Your task to perform on an android device: change keyboard looks Image 0: 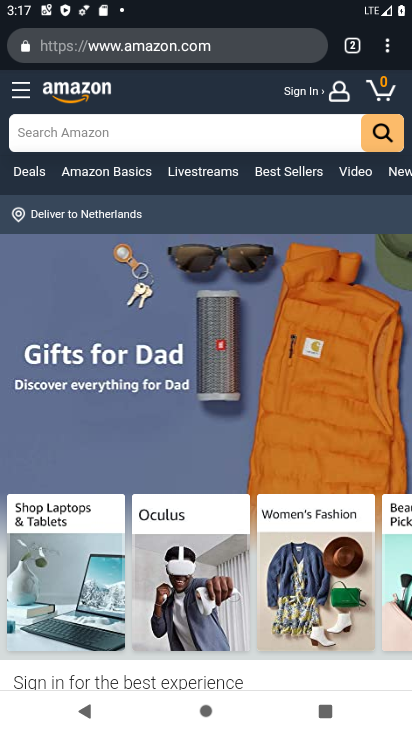
Step 0: press back button
Your task to perform on an android device: change keyboard looks Image 1: 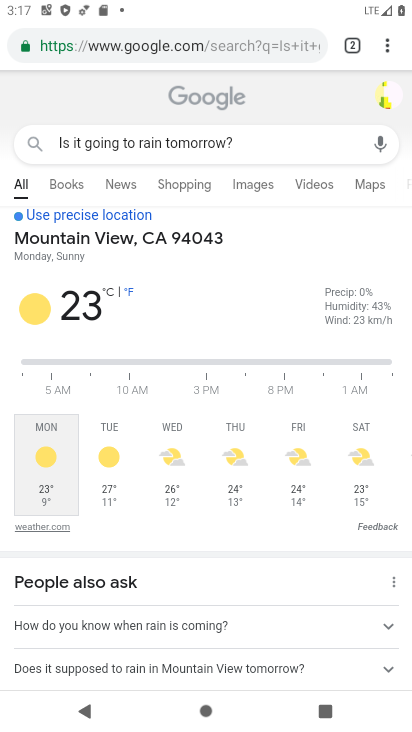
Step 1: press home button
Your task to perform on an android device: change keyboard looks Image 2: 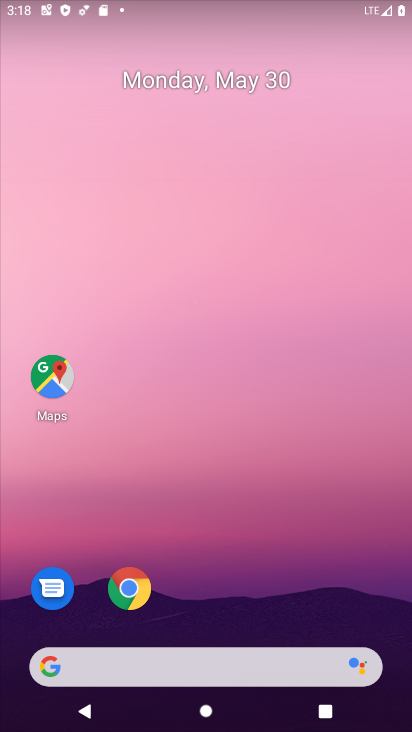
Step 2: drag from (303, 558) to (294, 50)
Your task to perform on an android device: change keyboard looks Image 3: 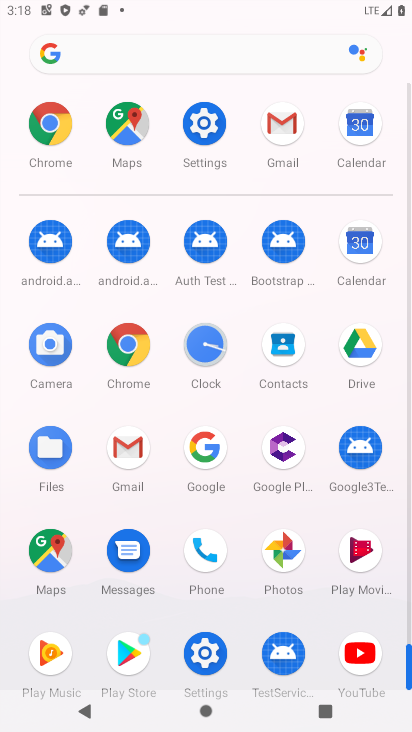
Step 3: click (203, 653)
Your task to perform on an android device: change keyboard looks Image 4: 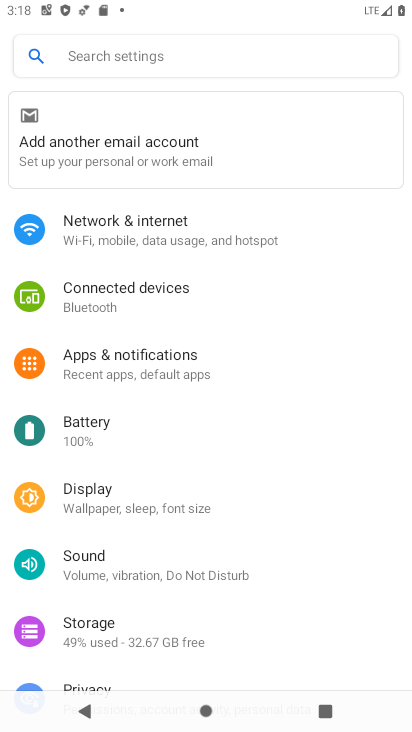
Step 4: drag from (295, 578) to (295, 141)
Your task to perform on an android device: change keyboard looks Image 5: 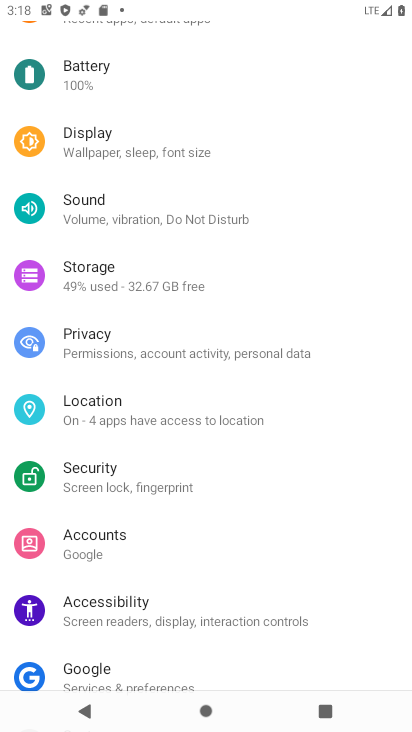
Step 5: drag from (263, 624) to (280, 146)
Your task to perform on an android device: change keyboard looks Image 6: 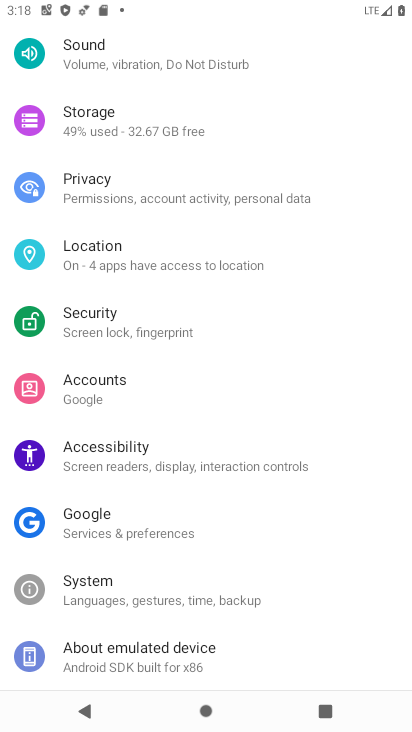
Step 6: click (162, 645)
Your task to perform on an android device: change keyboard looks Image 7: 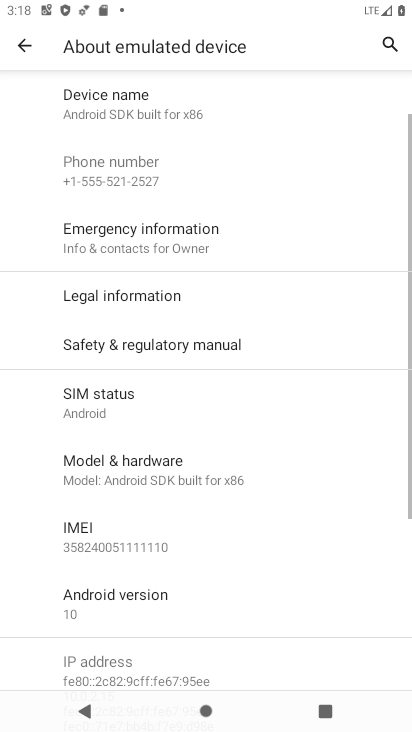
Step 7: click (31, 42)
Your task to perform on an android device: change keyboard looks Image 8: 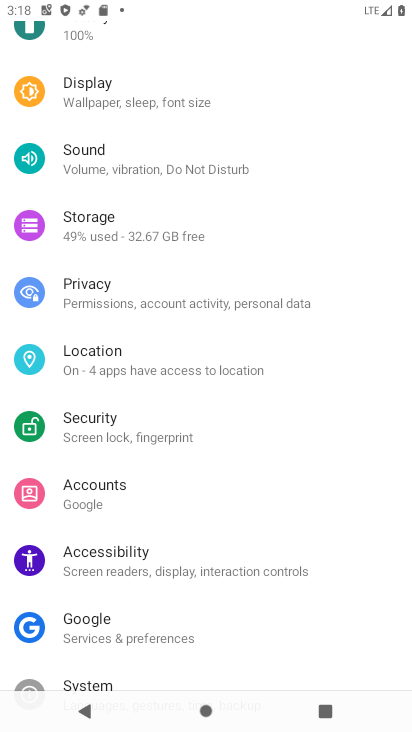
Step 8: drag from (211, 636) to (283, 133)
Your task to perform on an android device: change keyboard looks Image 9: 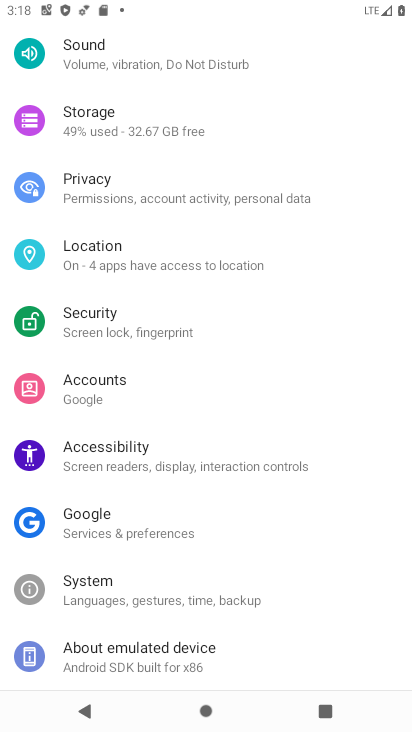
Step 9: click (148, 596)
Your task to perform on an android device: change keyboard looks Image 10: 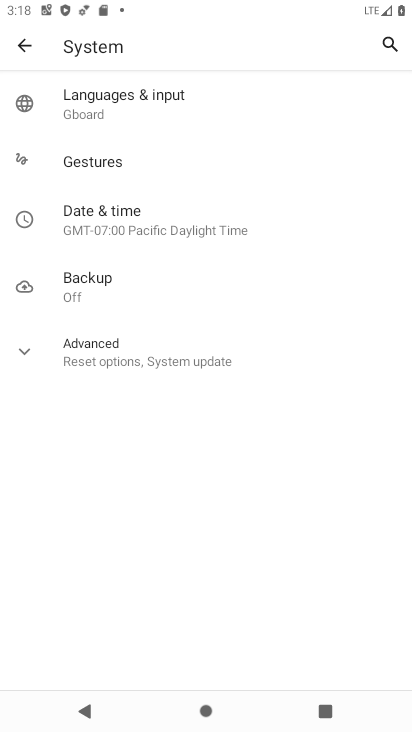
Step 10: click (37, 359)
Your task to perform on an android device: change keyboard looks Image 11: 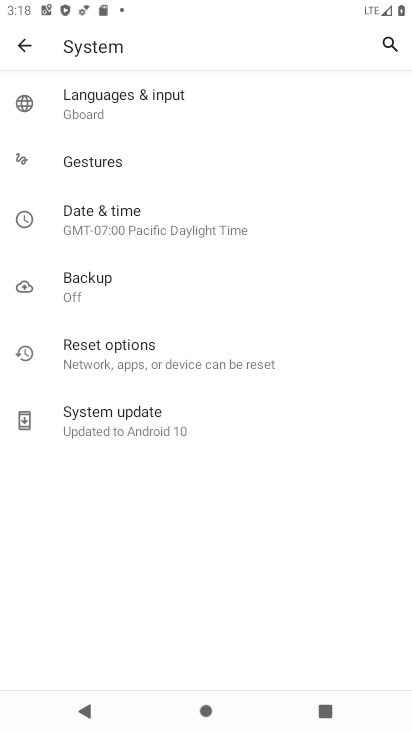
Step 11: click (134, 103)
Your task to perform on an android device: change keyboard looks Image 12: 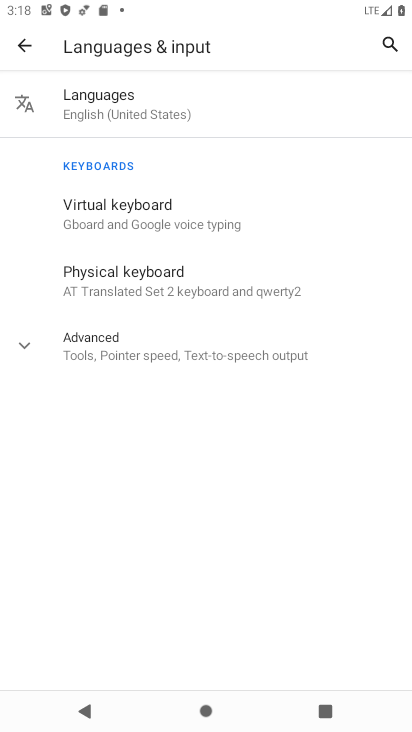
Step 12: click (28, 352)
Your task to perform on an android device: change keyboard looks Image 13: 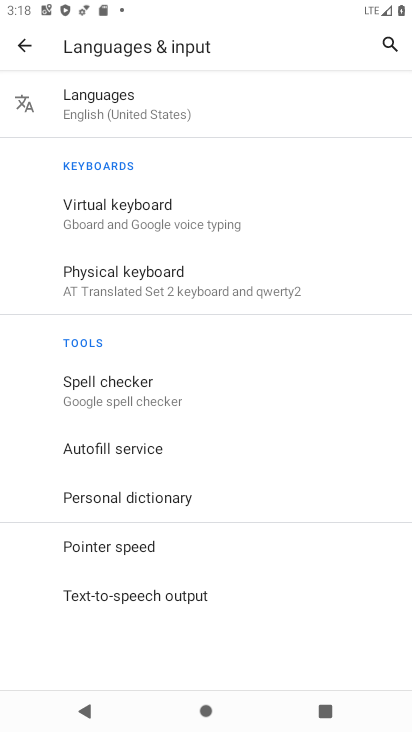
Step 13: click (134, 219)
Your task to perform on an android device: change keyboard looks Image 14: 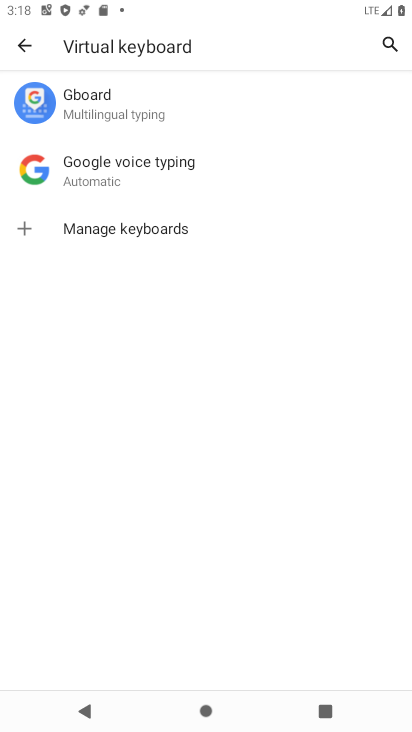
Step 14: click (155, 109)
Your task to perform on an android device: change keyboard looks Image 15: 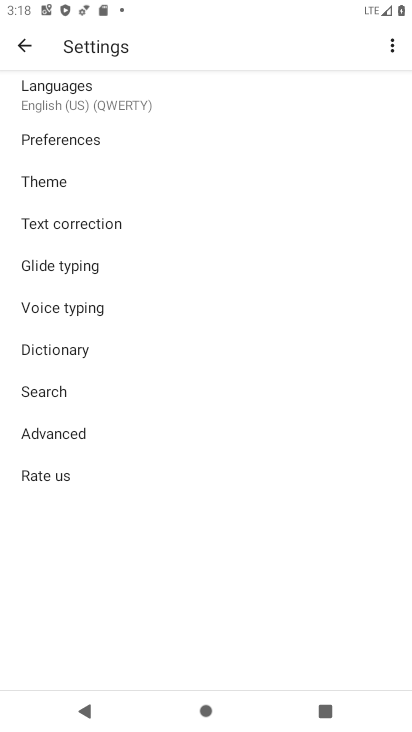
Step 15: click (86, 185)
Your task to perform on an android device: change keyboard looks Image 16: 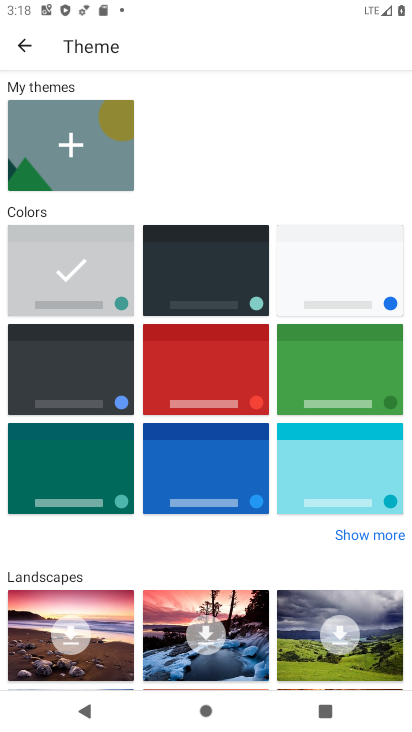
Step 16: click (225, 257)
Your task to perform on an android device: change keyboard looks Image 17: 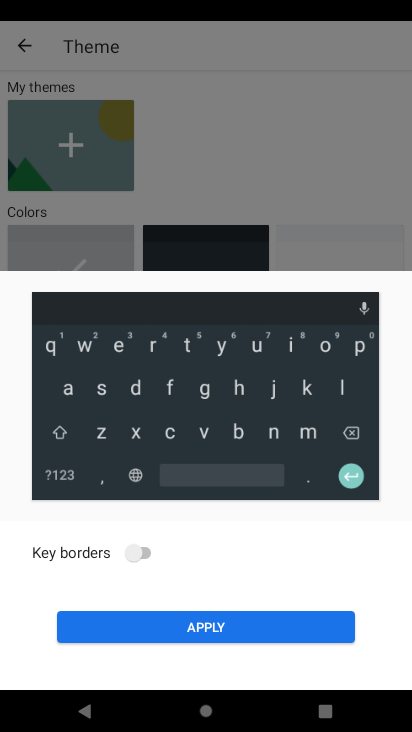
Step 17: click (185, 630)
Your task to perform on an android device: change keyboard looks Image 18: 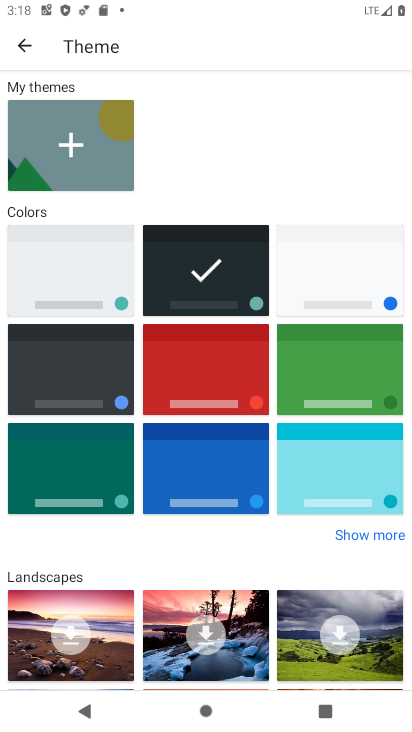
Step 18: task complete